Your task to perform on an android device: Open internet settings Image 0: 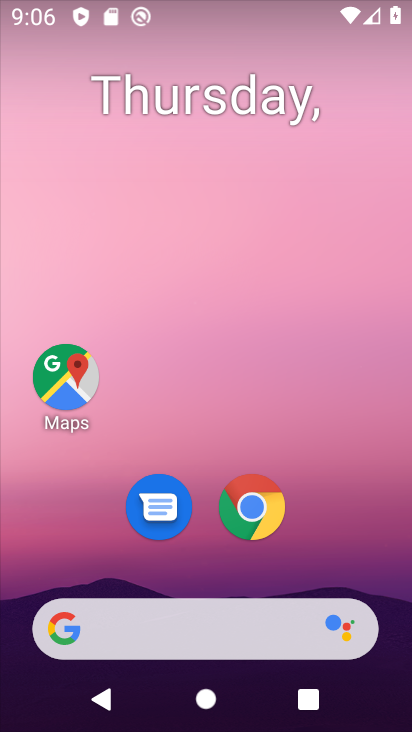
Step 0: drag from (205, 554) to (179, 2)
Your task to perform on an android device: Open internet settings Image 1: 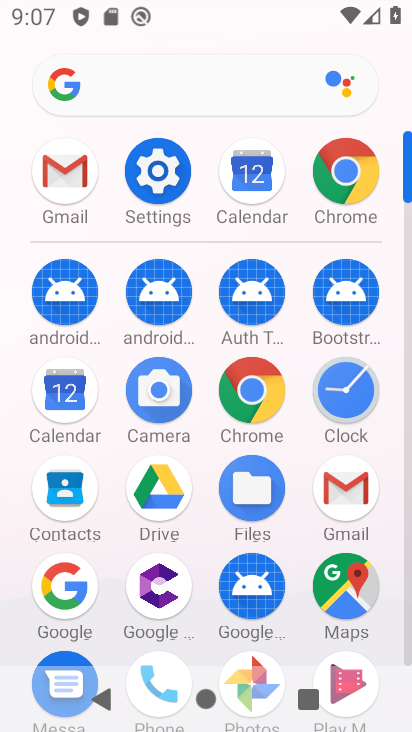
Step 1: click (152, 166)
Your task to perform on an android device: Open internet settings Image 2: 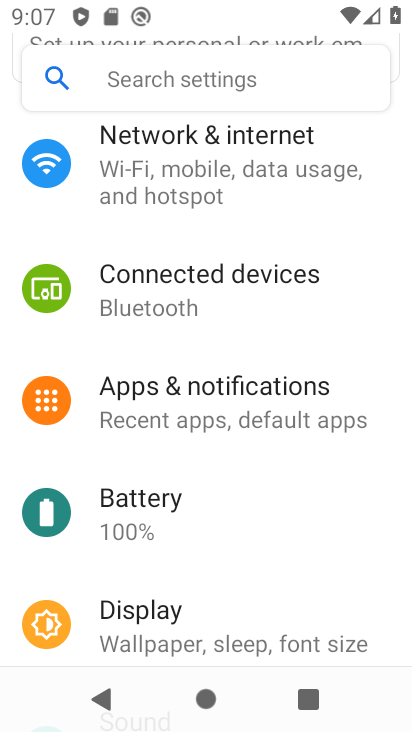
Step 2: click (203, 187)
Your task to perform on an android device: Open internet settings Image 3: 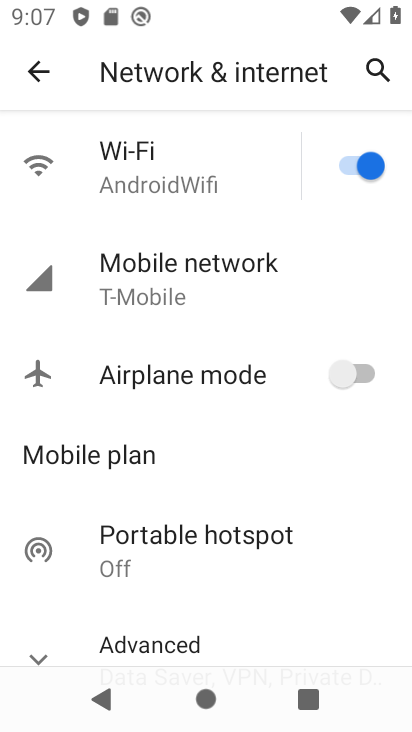
Step 3: task complete